Your task to perform on an android device: turn off location history Image 0: 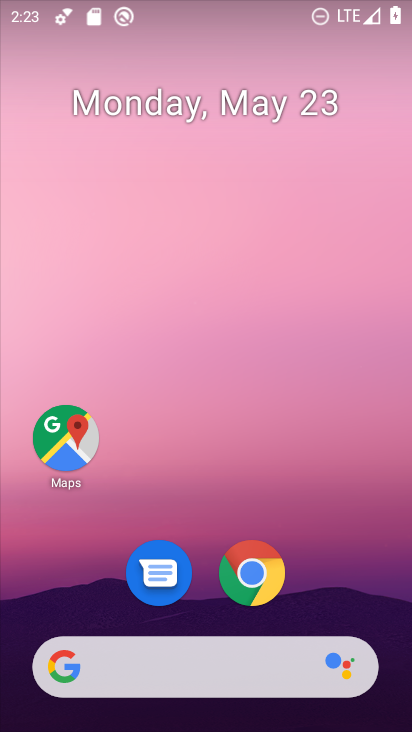
Step 0: drag from (335, 571) to (276, 118)
Your task to perform on an android device: turn off location history Image 1: 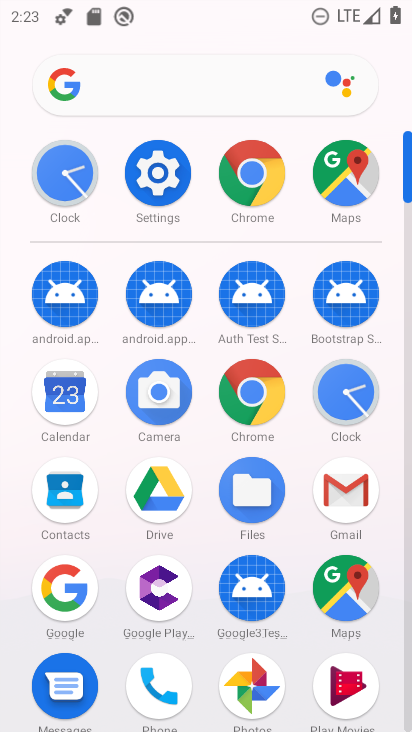
Step 1: click (163, 176)
Your task to perform on an android device: turn off location history Image 2: 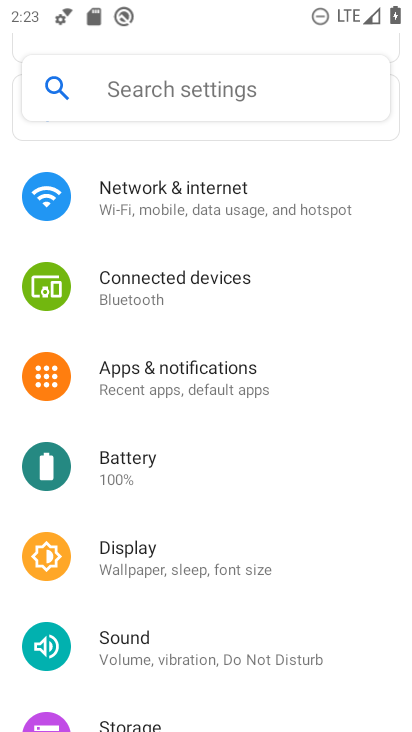
Step 2: drag from (131, 301) to (177, 150)
Your task to perform on an android device: turn off location history Image 3: 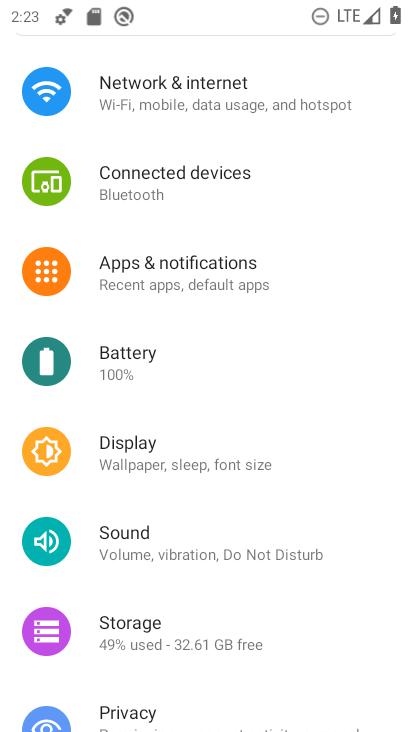
Step 3: drag from (201, 594) to (231, 216)
Your task to perform on an android device: turn off location history Image 4: 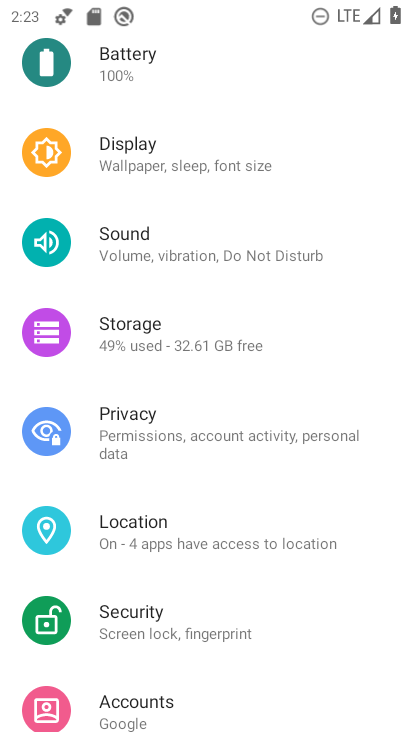
Step 4: click (186, 528)
Your task to perform on an android device: turn off location history Image 5: 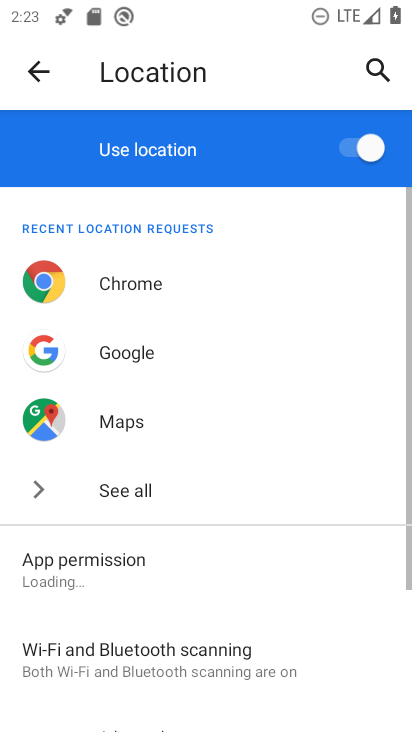
Step 5: drag from (205, 605) to (275, 245)
Your task to perform on an android device: turn off location history Image 6: 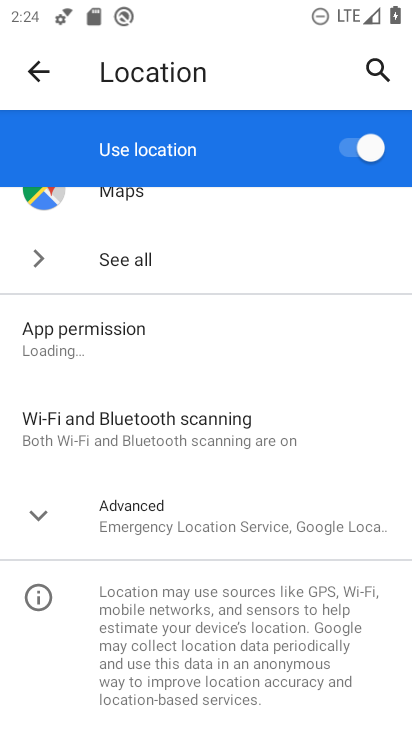
Step 6: click (155, 517)
Your task to perform on an android device: turn off location history Image 7: 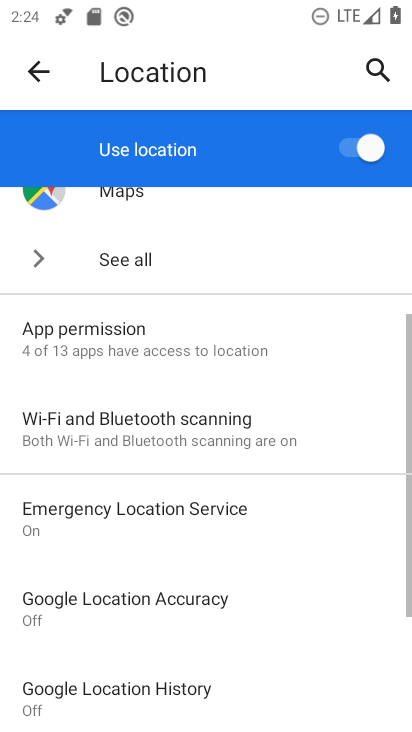
Step 7: drag from (166, 699) to (264, 343)
Your task to perform on an android device: turn off location history Image 8: 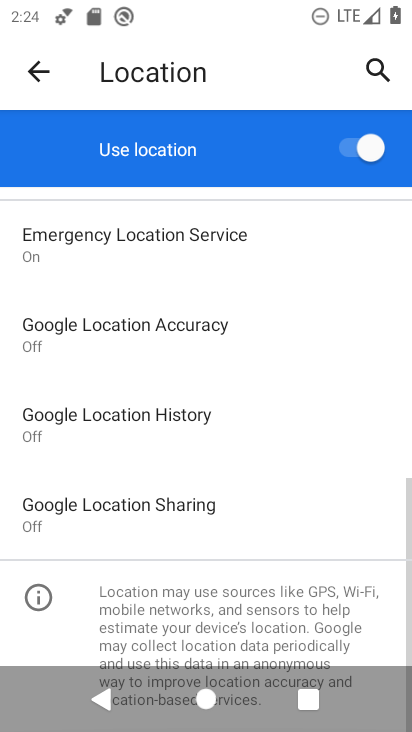
Step 8: click (164, 430)
Your task to perform on an android device: turn off location history Image 9: 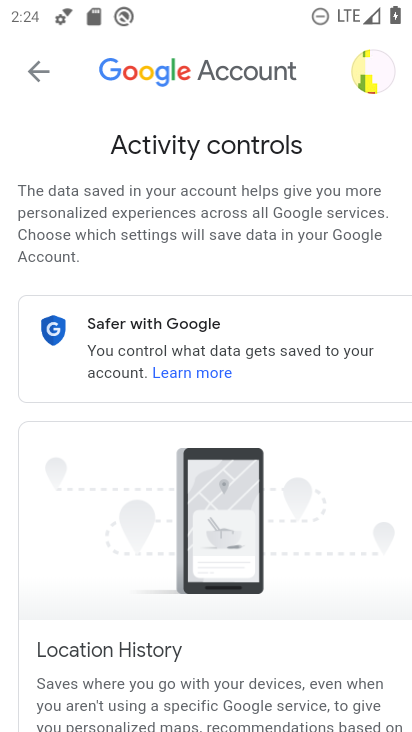
Step 9: task complete